Your task to perform on an android device: change keyboard looks Image 0: 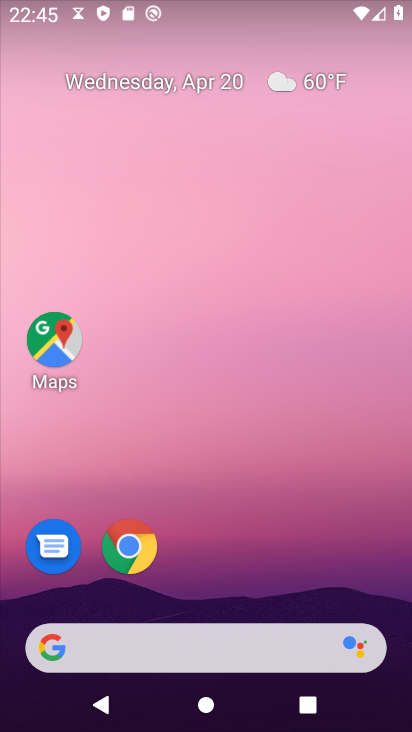
Step 0: drag from (213, 509) to (211, 44)
Your task to perform on an android device: change keyboard looks Image 1: 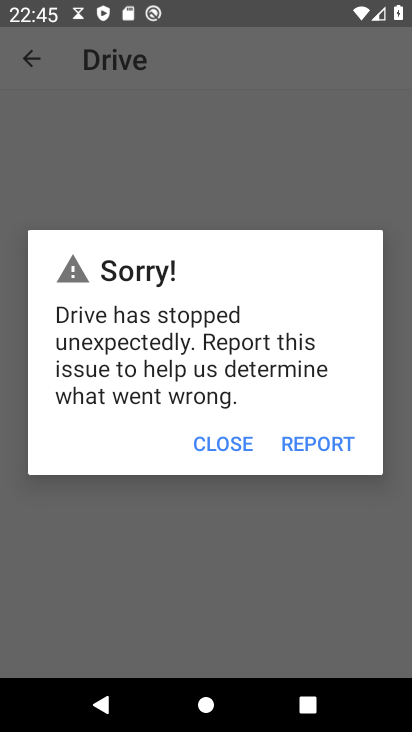
Step 1: press home button
Your task to perform on an android device: change keyboard looks Image 2: 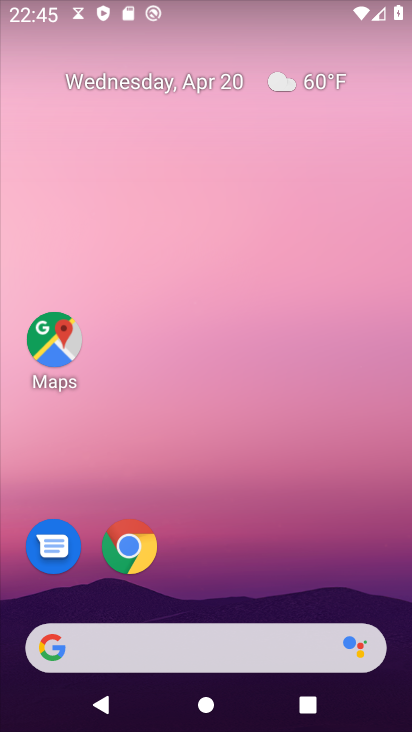
Step 2: drag from (240, 540) to (230, 68)
Your task to perform on an android device: change keyboard looks Image 3: 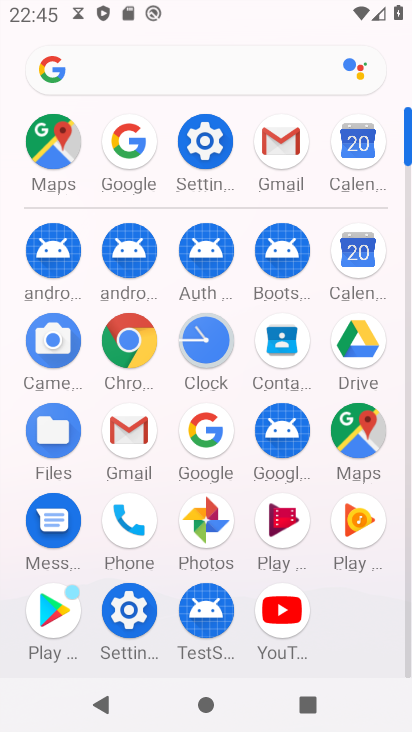
Step 3: click (194, 141)
Your task to perform on an android device: change keyboard looks Image 4: 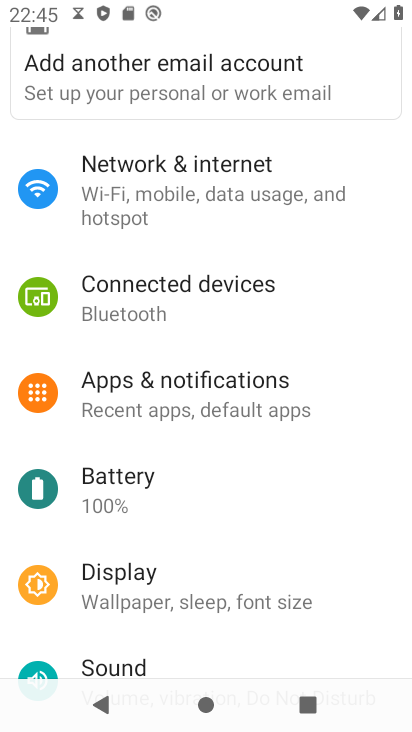
Step 4: drag from (254, 597) to (269, 123)
Your task to perform on an android device: change keyboard looks Image 5: 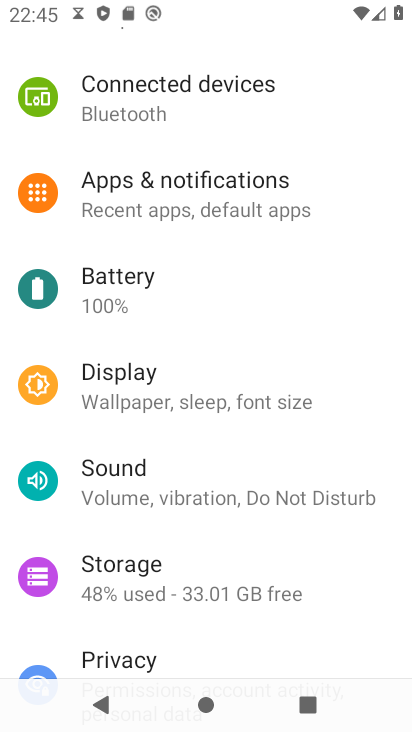
Step 5: drag from (248, 606) to (239, 118)
Your task to perform on an android device: change keyboard looks Image 6: 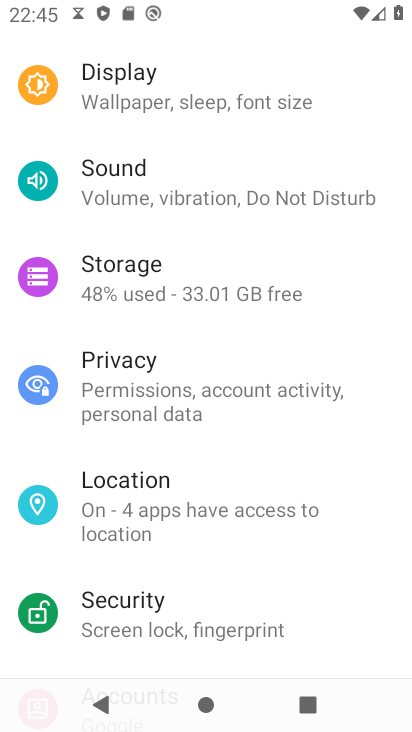
Step 6: drag from (228, 422) to (236, 118)
Your task to perform on an android device: change keyboard looks Image 7: 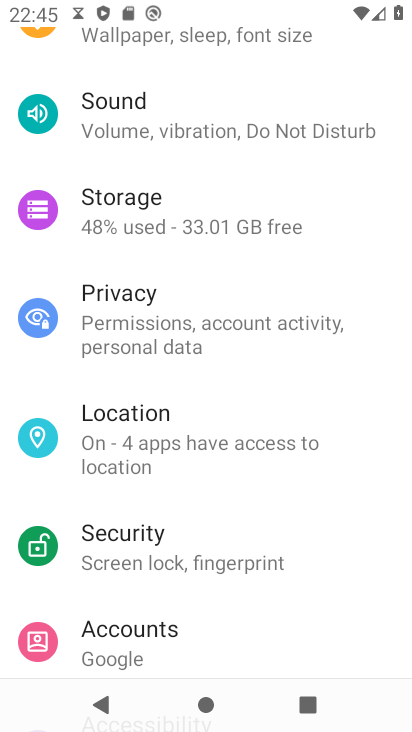
Step 7: drag from (210, 584) to (188, 85)
Your task to perform on an android device: change keyboard looks Image 8: 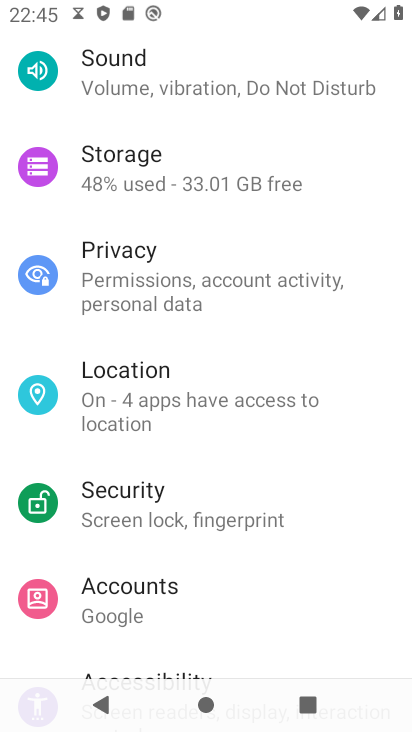
Step 8: drag from (227, 530) to (223, 61)
Your task to perform on an android device: change keyboard looks Image 9: 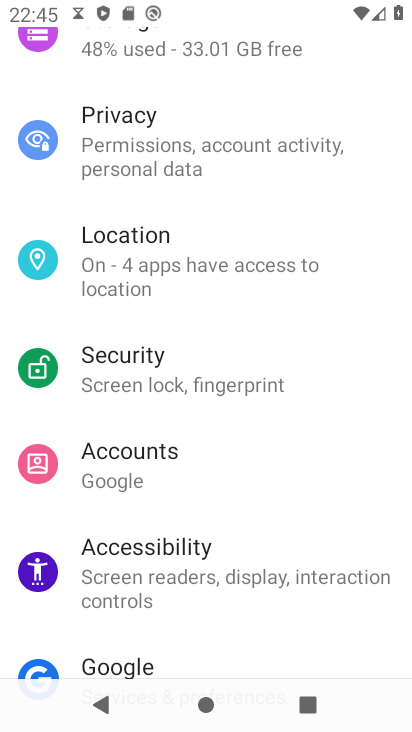
Step 9: drag from (200, 389) to (183, 33)
Your task to perform on an android device: change keyboard looks Image 10: 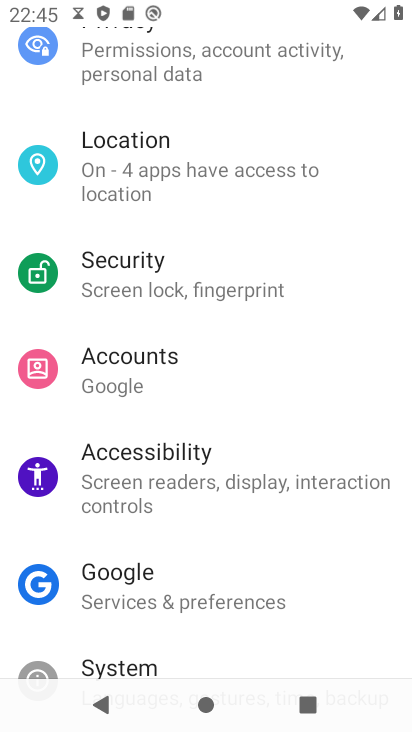
Step 10: click (188, 660)
Your task to perform on an android device: change keyboard looks Image 11: 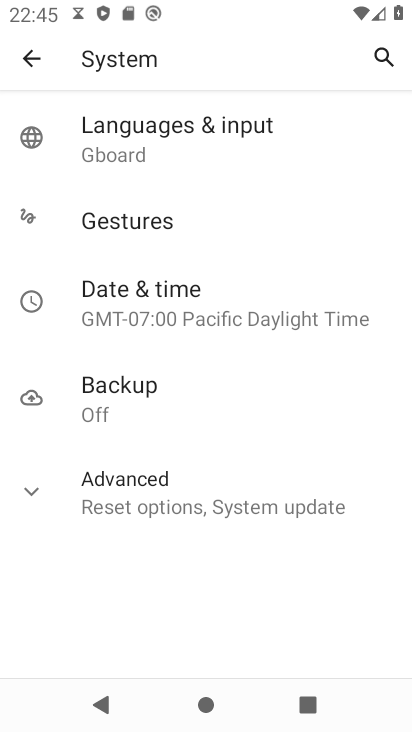
Step 11: click (150, 143)
Your task to perform on an android device: change keyboard looks Image 12: 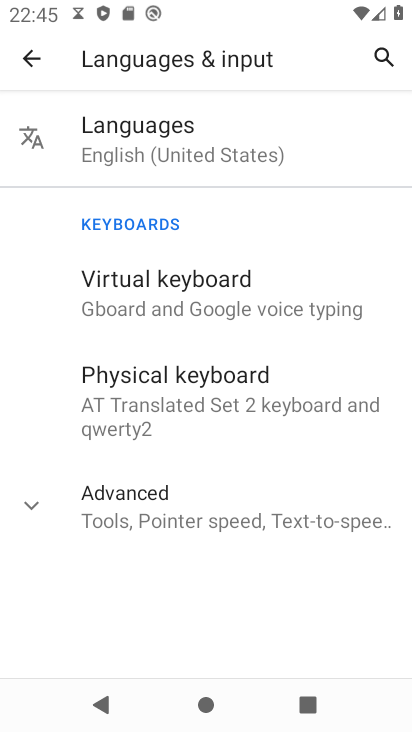
Step 12: click (173, 284)
Your task to perform on an android device: change keyboard looks Image 13: 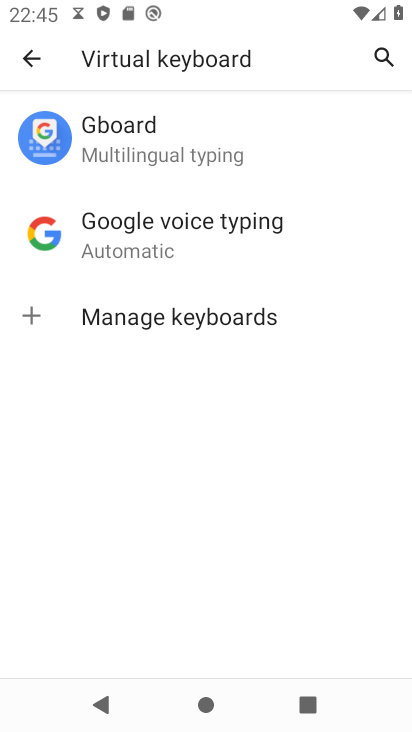
Step 13: click (145, 136)
Your task to perform on an android device: change keyboard looks Image 14: 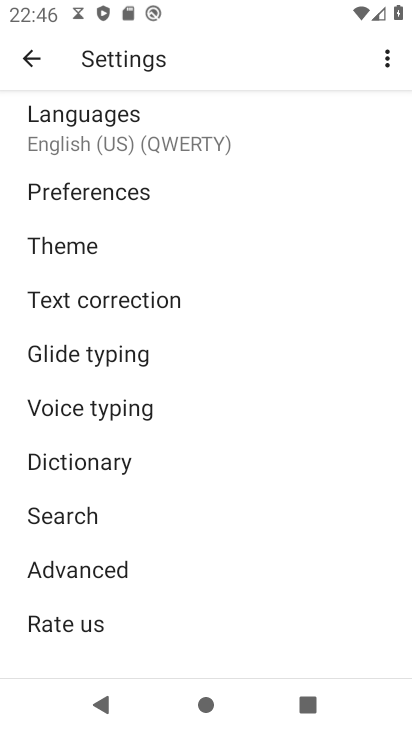
Step 14: click (120, 247)
Your task to perform on an android device: change keyboard looks Image 15: 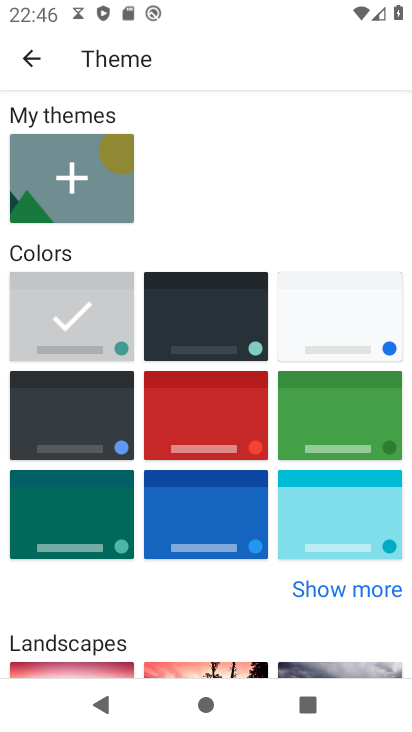
Step 15: click (221, 325)
Your task to perform on an android device: change keyboard looks Image 16: 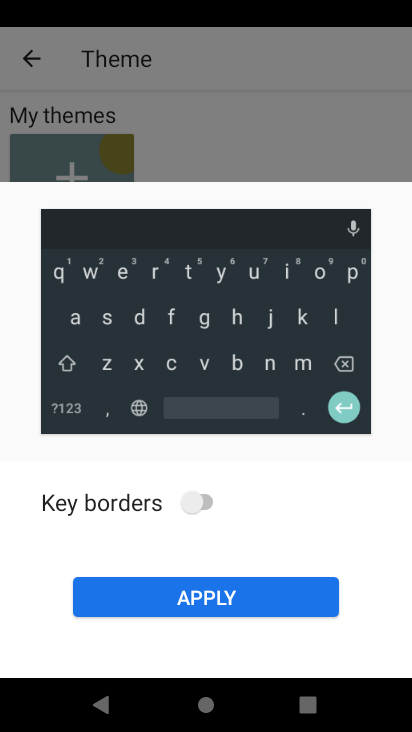
Step 16: click (209, 594)
Your task to perform on an android device: change keyboard looks Image 17: 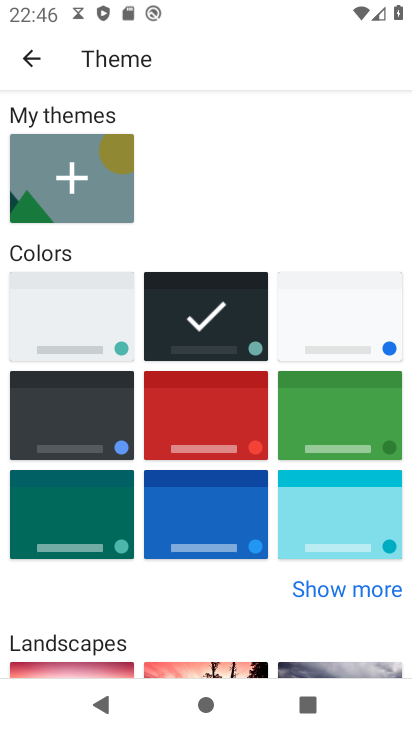
Step 17: task complete